Your task to perform on an android device: turn on location history Image 0: 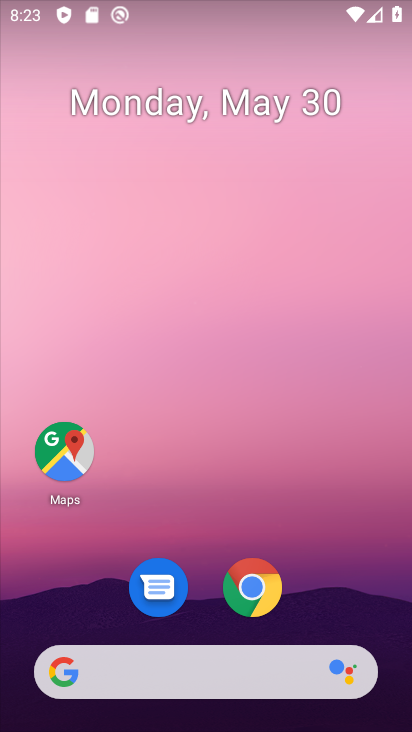
Step 0: drag from (193, 544) to (233, 32)
Your task to perform on an android device: turn on location history Image 1: 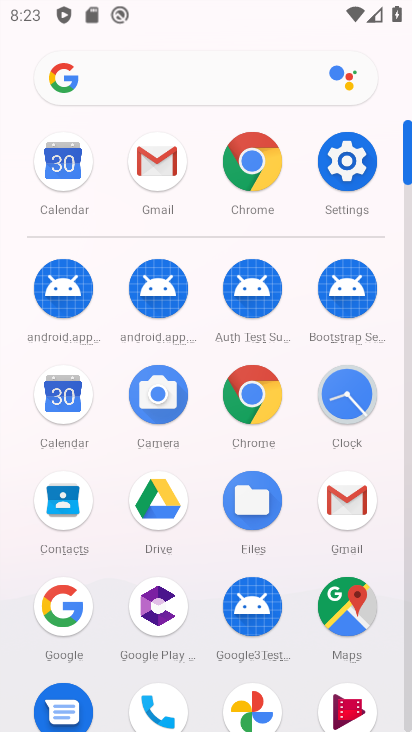
Step 1: click (351, 156)
Your task to perform on an android device: turn on location history Image 2: 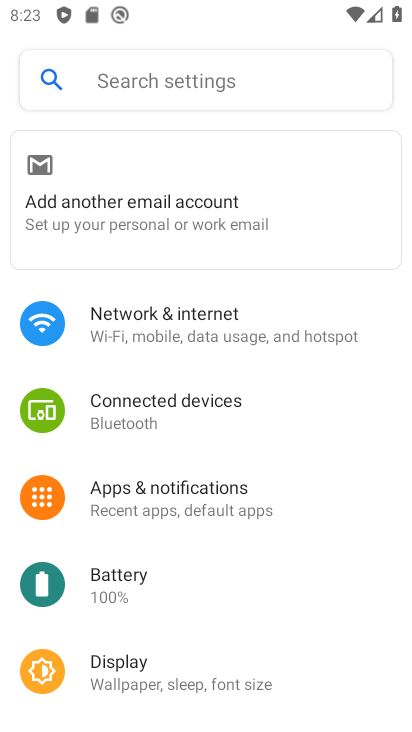
Step 2: drag from (172, 632) to (256, 158)
Your task to perform on an android device: turn on location history Image 3: 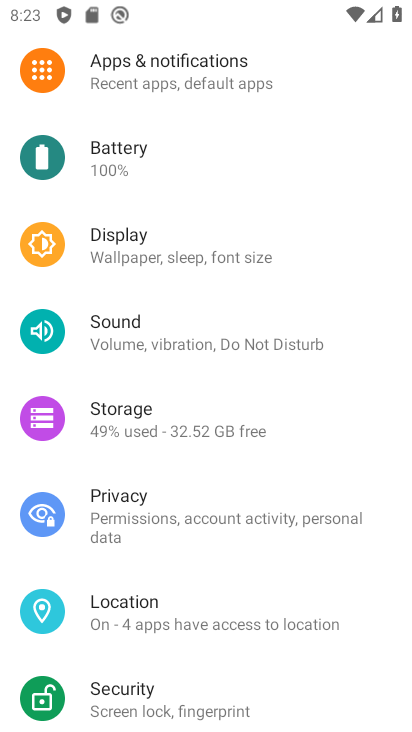
Step 3: click (166, 598)
Your task to perform on an android device: turn on location history Image 4: 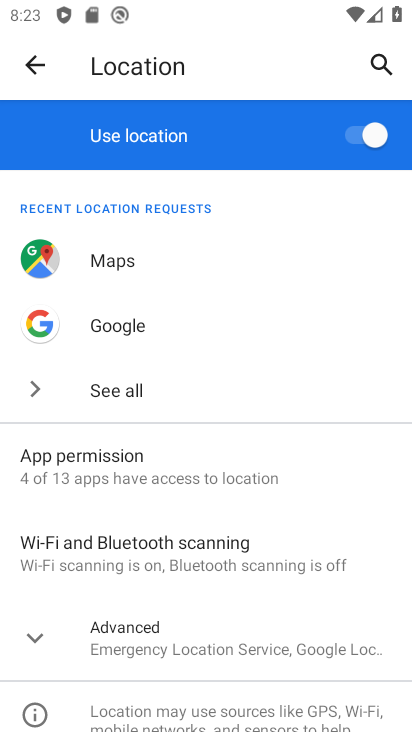
Step 4: click (37, 639)
Your task to perform on an android device: turn on location history Image 5: 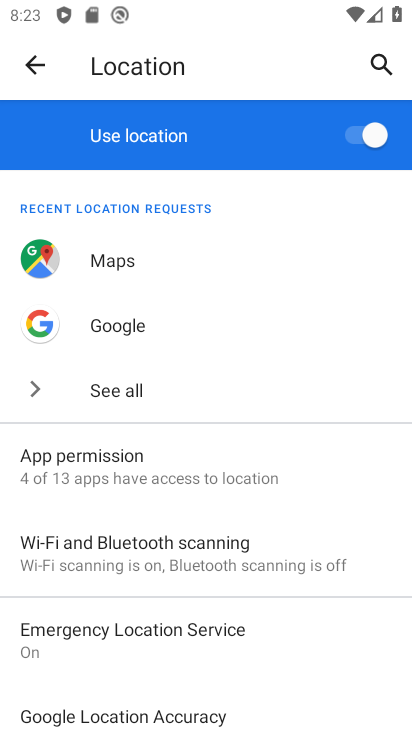
Step 5: drag from (187, 661) to (200, 334)
Your task to perform on an android device: turn on location history Image 6: 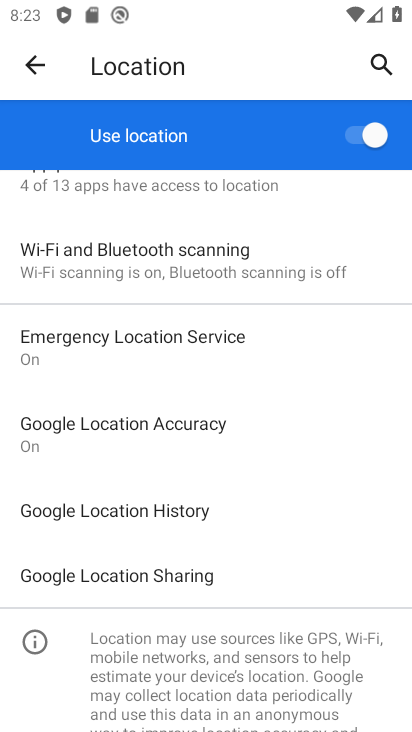
Step 6: click (166, 511)
Your task to perform on an android device: turn on location history Image 7: 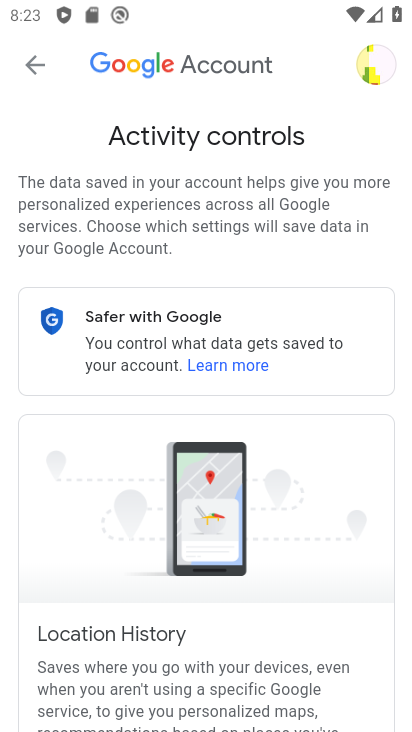
Step 7: task complete